Your task to perform on an android device: turn smart compose on in the gmail app Image 0: 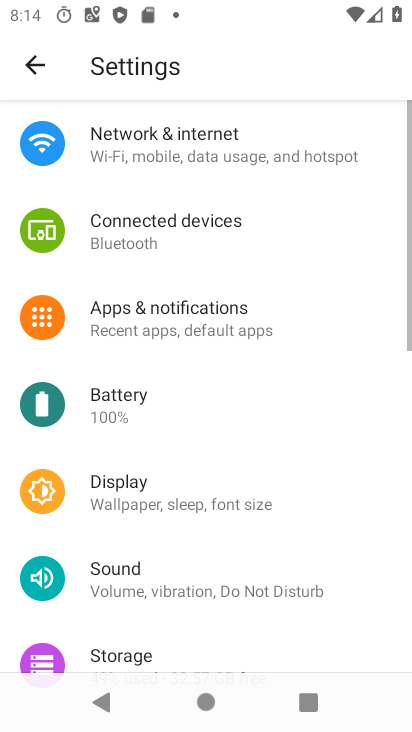
Step 0: press home button
Your task to perform on an android device: turn smart compose on in the gmail app Image 1: 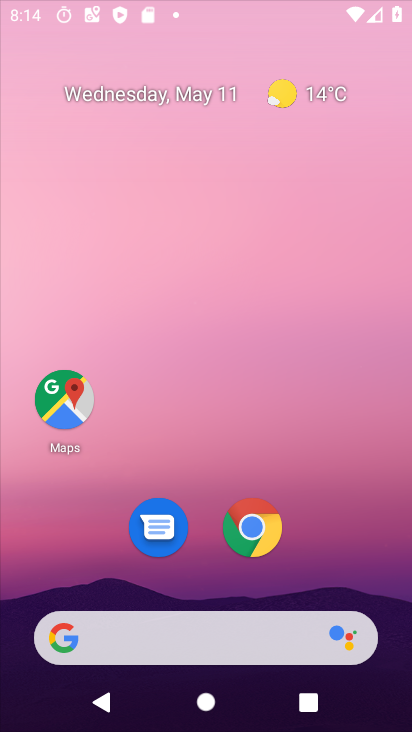
Step 1: drag from (231, 651) to (254, 233)
Your task to perform on an android device: turn smart compose on in the gmail app Image 2: 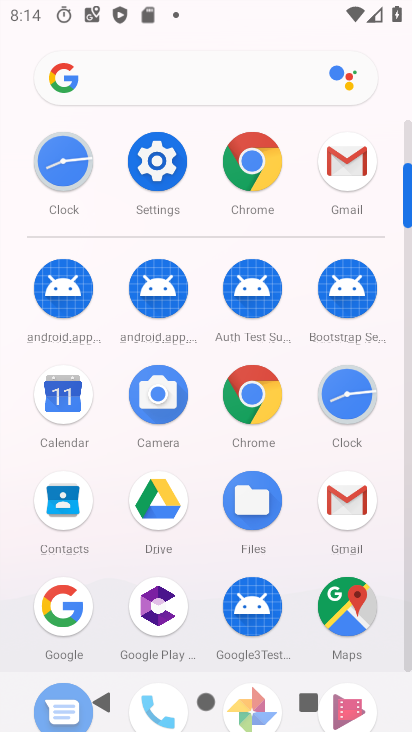
Step 2: click (355, 502)
Your task to perform on an android device: turn smart compose on in the gmail app Image 3: 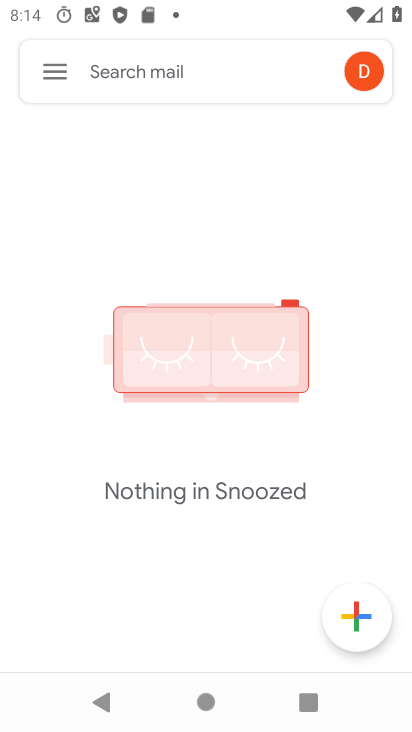
Step 3: click (55, 75)
Your task to perform on an android device: turn smart compose on in the gmail app Image 4: 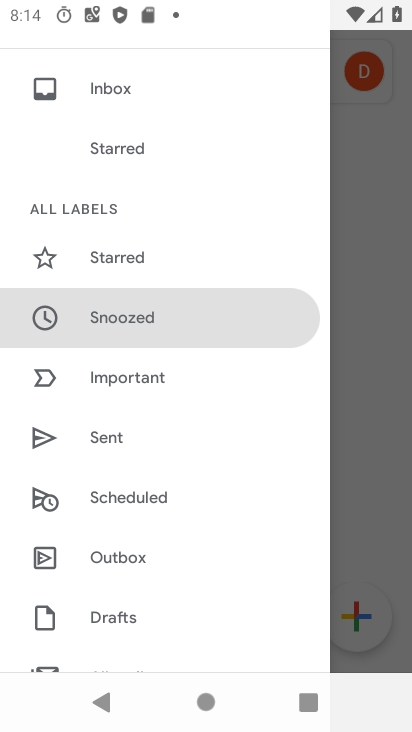
Step 4: drag from (108, 531) to (187, 194)
Your task to perform on an android device: turn smart compose on in the gmail app Image 5: 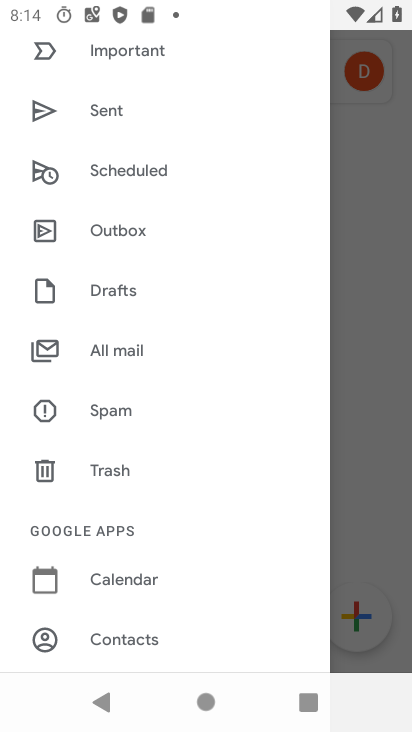
Step 5: drag from (155, 556) to (210, 315)
Your task to perform on an android device: turn smart compose on in the gmail app Image 6: 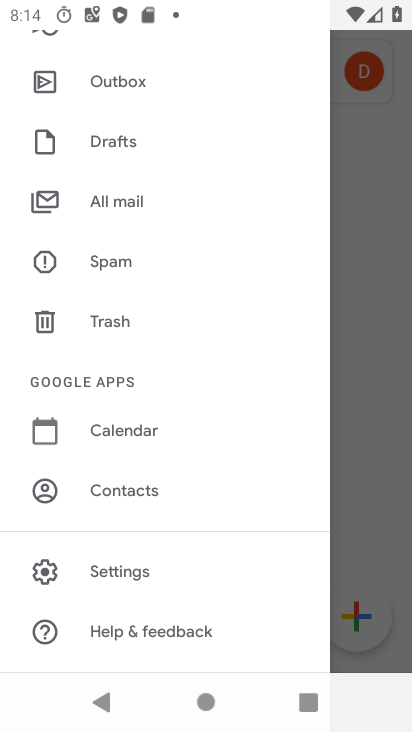
Step 6: click (112, 579)
Your task to perform on an android device: turn smart compose on in the gmail app Image 7: 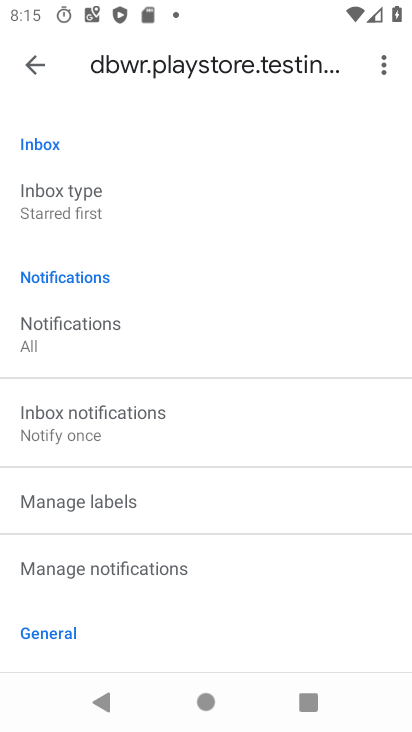
Step 7: task complete